Your task to perform on an android device: Open Chrome and go to settings Image 0: 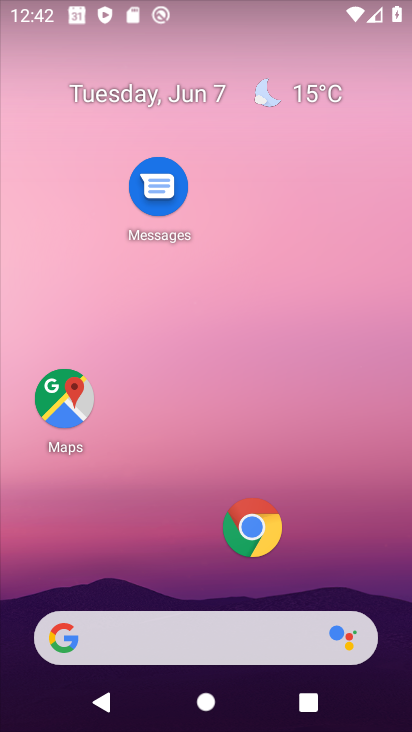
Step 0: click (257, 527)
Your task to perform on an android device: Open Chrome and go to settings Image 1: 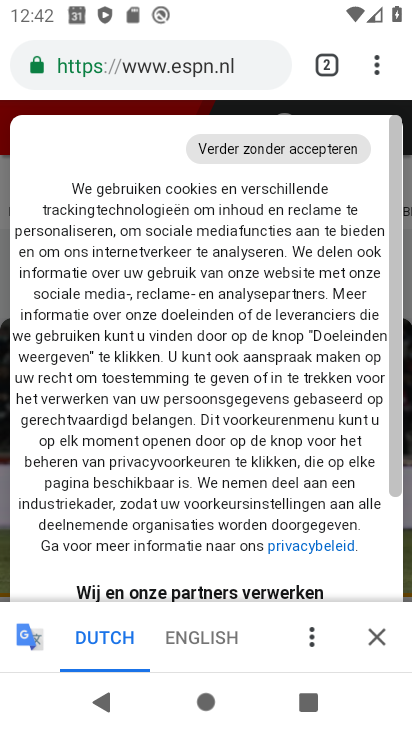
Step 1: click (371, 66)
Your task to perform on an android device: Open Chrome and go to settings Image 2: 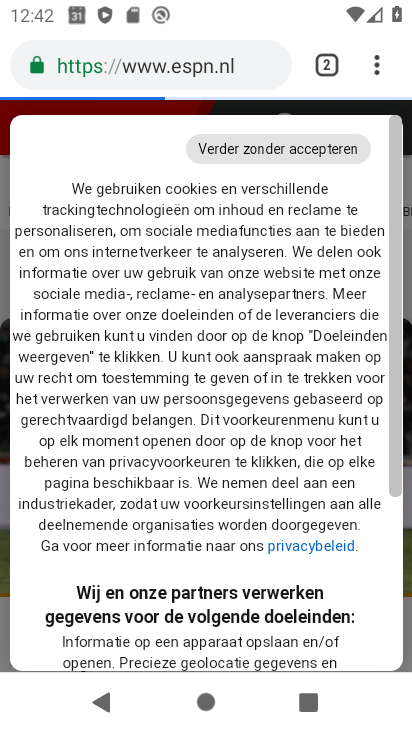
Step 2: click (380, 70)
Your task to perform on an android device: Open Chrome and go to settings Image 3: 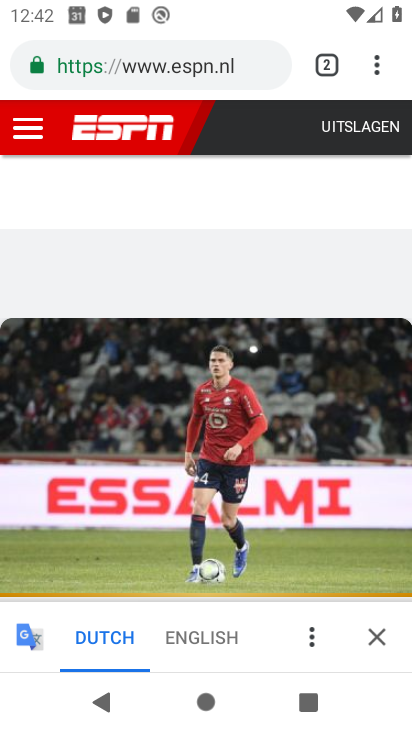
Step 3: click (381, 67)
Your task to perform on an android device: Open Chrome and go to settings Image 4: 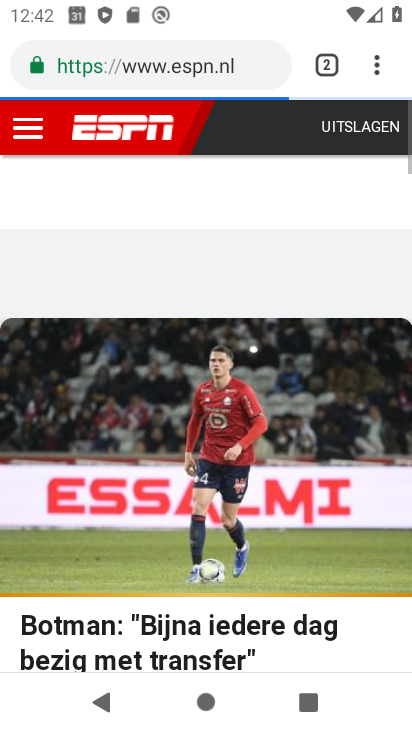
Step 4: click (377, 64)
Your task to perform on an android device: Open Chrome and go to settings Image 5: 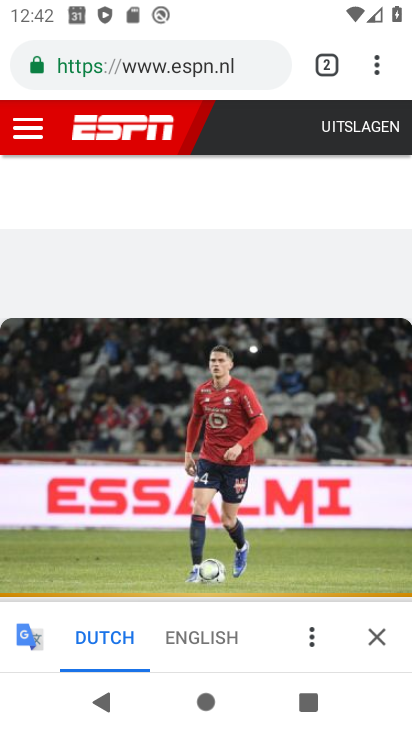
Step 5: click (377, 71)
Your task to perform on an android device: Open Chrome and go to settings Image 6: 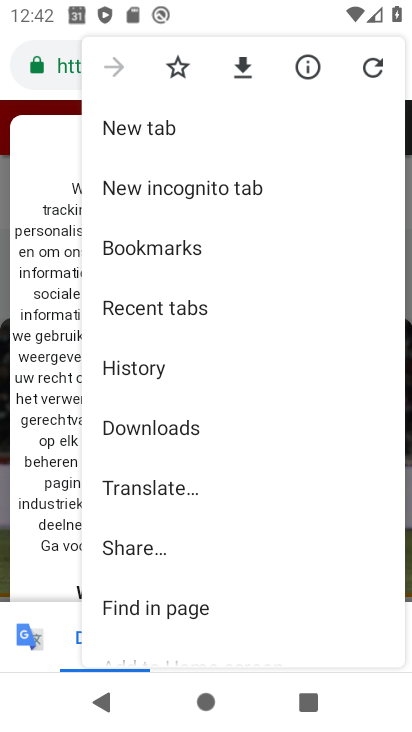
Step 6: drag from (159, 625) to (188, 319)
Your task to perform on an android device: Open Chrome and go to settings Image 7: 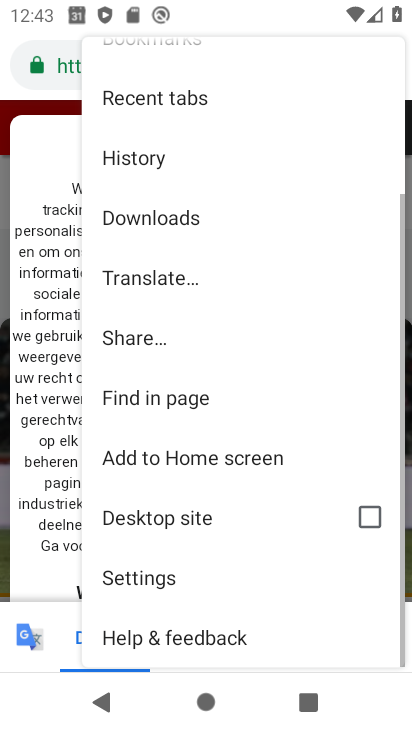
Step 7: click (146, 576)
Your task to perform on an android device: Open Chrome and go to settings Image 8: 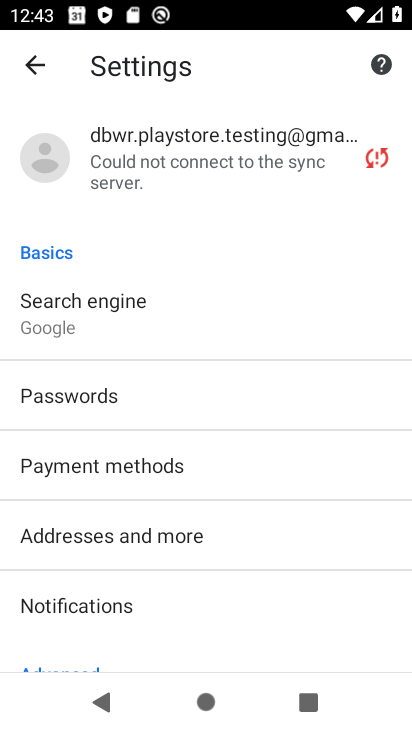
Step 8: click (202, 382)
Your task to perform on an android device: Open Chrome and go to settings Image 9: 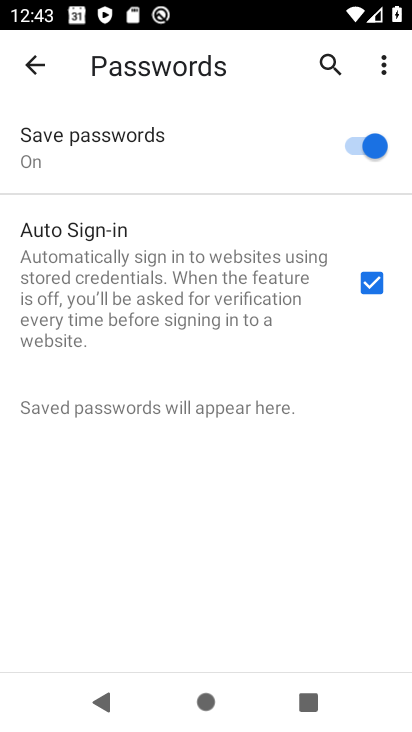
Step 9: task complete